Your task to perform on an android device: turn notification dots off Image 0: 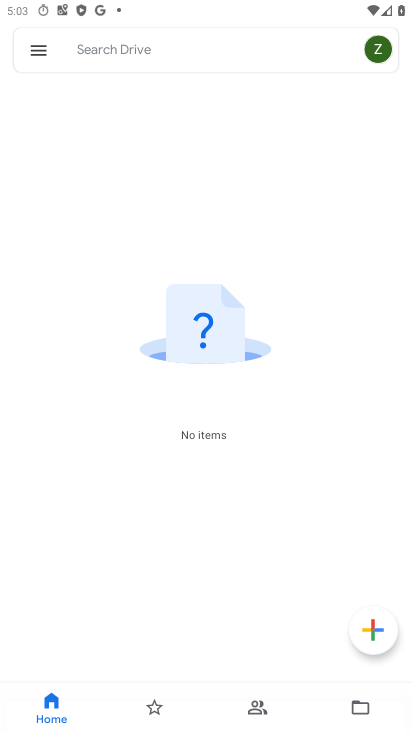
Step 0: press back button
Your task to perform on an android device: turn notification dots off Image 1: 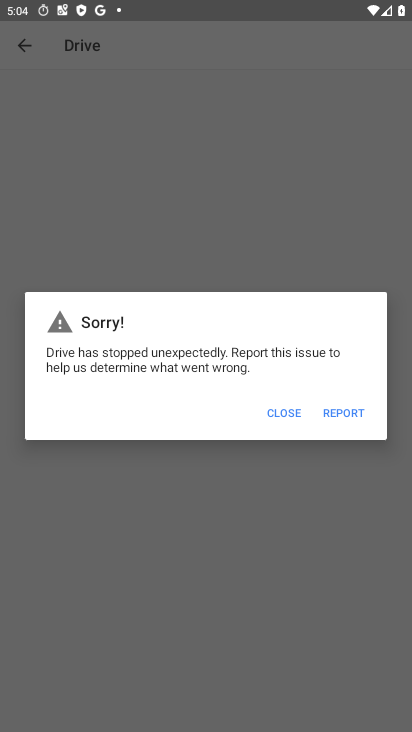
Step 1: press home button
Your task to perform on an android device: turn notification dots off Image 2: 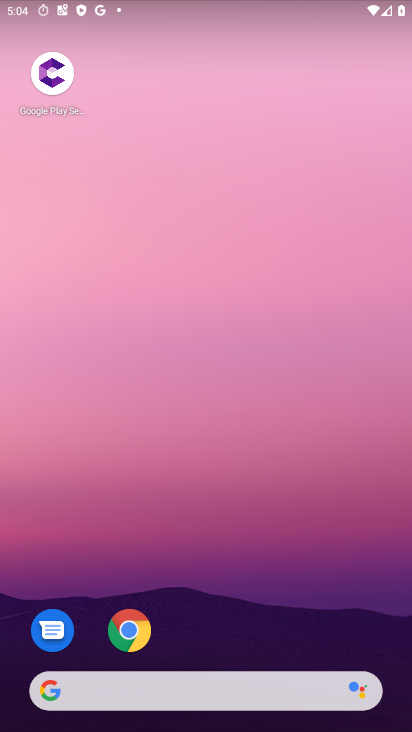
Step 2: drag from (250, 524) to (227, 209)
Your task to perform on an android device: turn notification dots off Image 3: 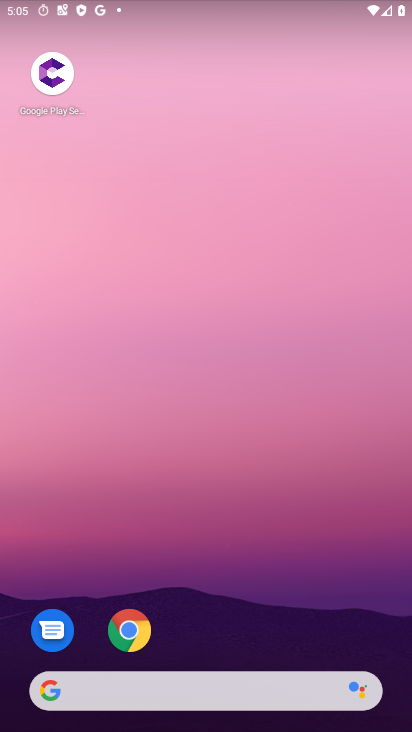
Step 3: drag from (262, 612) to (239, 126)
Your task to perform on an android device: turn notification dots off Image 4: 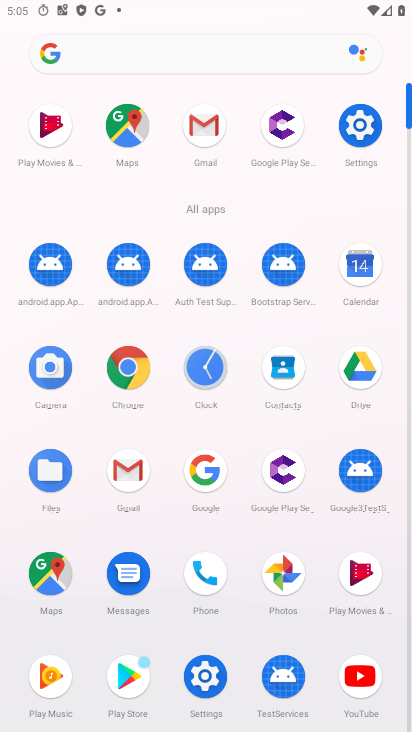
Step 4: click (358, 115)
Your task to perform on an android device: turn notification dots off Image 5: 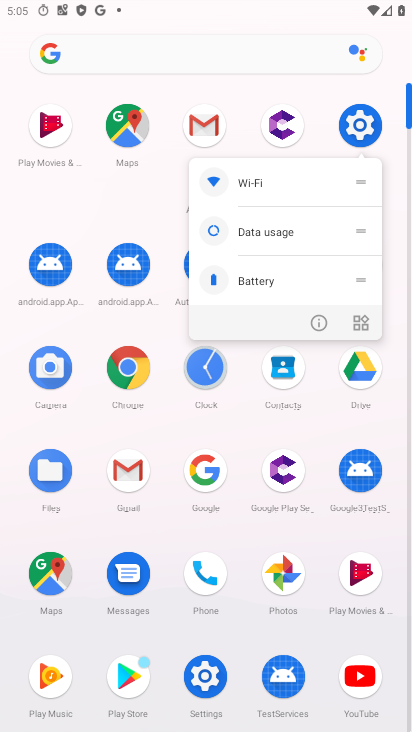
Step 5: click (358, 115)
Your task to perform on an android device: turn notification dots off Image 6: 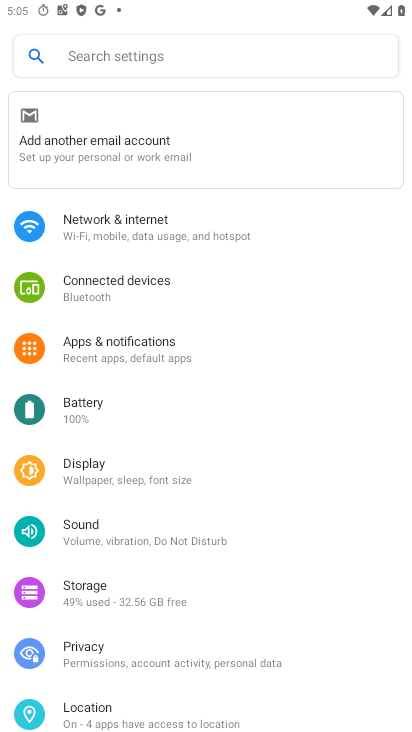
Step 6: click (129, 337)
Your task to perform on an android device: turn notification dots off Image 7: 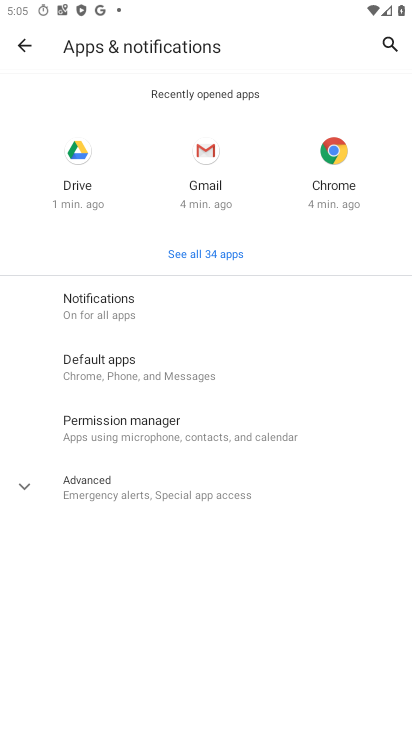
Step 7: click (132, 314)
Your task to perform on an android device: turn notification dots off Image 8: 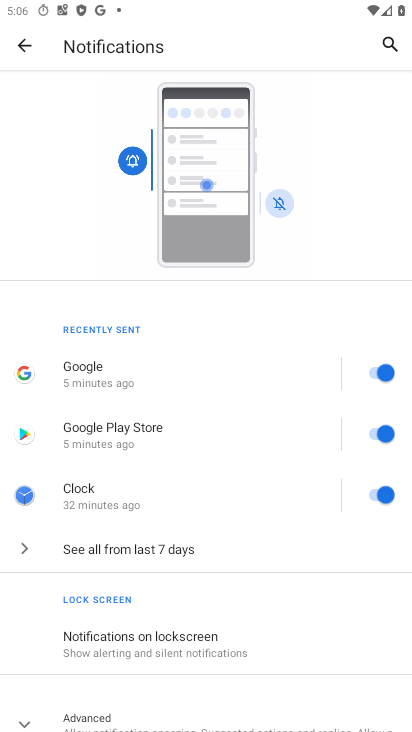
Step 8: drag from (166, 635) to (175, 309)
Your task to perform on an android device: turn notification dots off Image 9: 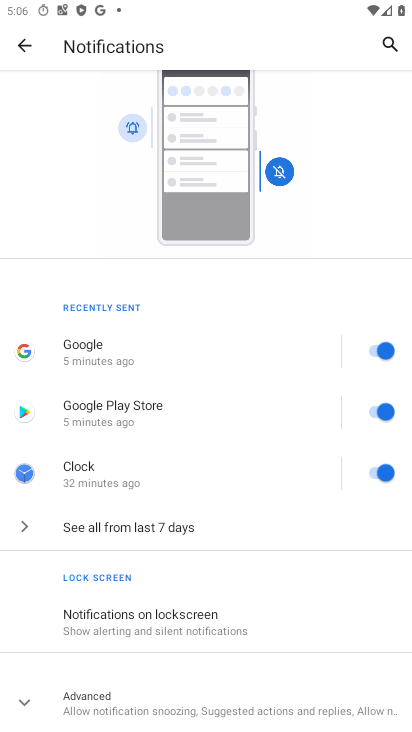
Step 9: click (144, 686)
Your task to perform on an android device: turn notification dots off Image 10: 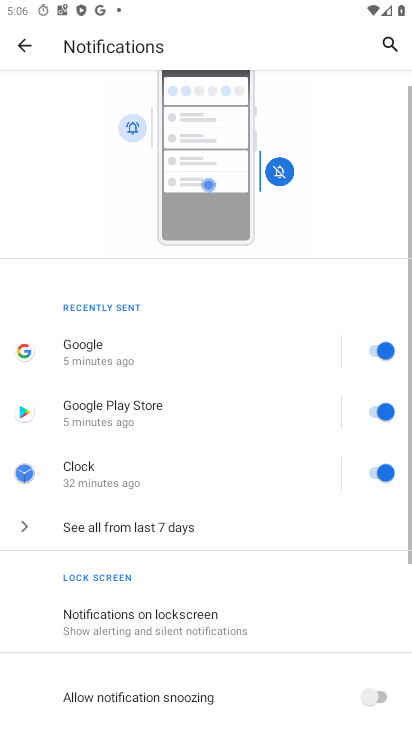
Step 10: drag from (143, 682) to (176, 287)
Your task to perform on an android device: turn notification dots off Image 11: 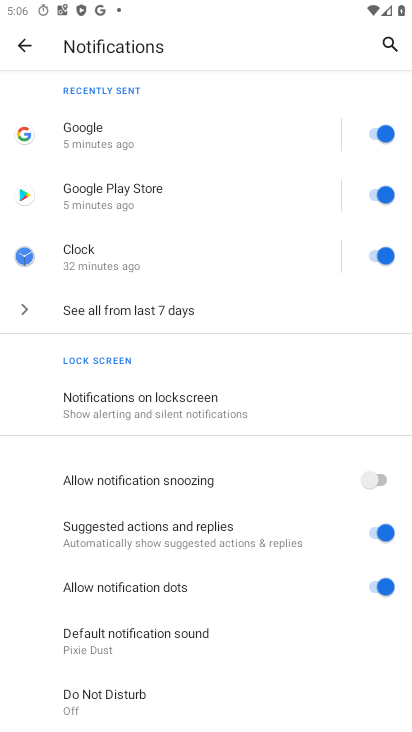
Step 11: drag from (320, 654) to (321, 334)
Your task to perform on an android device: turn notification dots off Image 12: 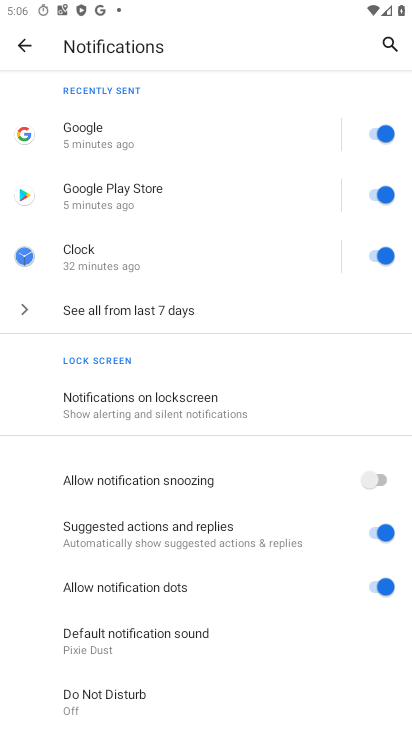
Step 12: click (390, 575)
Your task to perform on an android device: turn notification dots off Image 13: 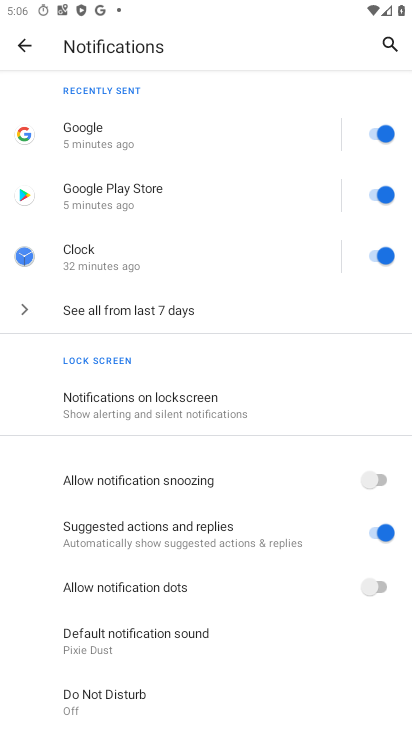
Step 13: task complete